Your task to perform on an android device: open a new tab in the chrome app Image 0: 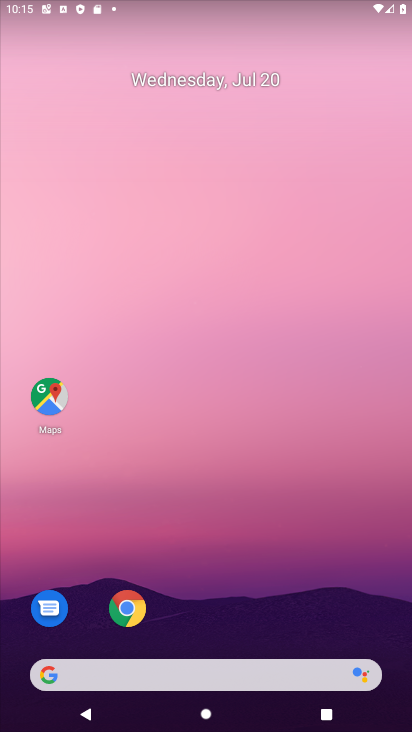
Step 0: drag from (219, 634) to (265, 69)
Your task to perform on an android device: open a new tab in the chrome app Image 1: 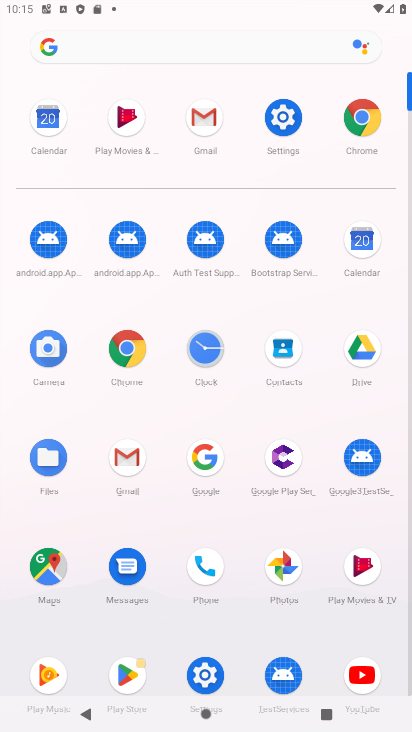
Step 1: click (132, 368)
Your task to perform on an android device: open a new tab in the chrome app Image 2: 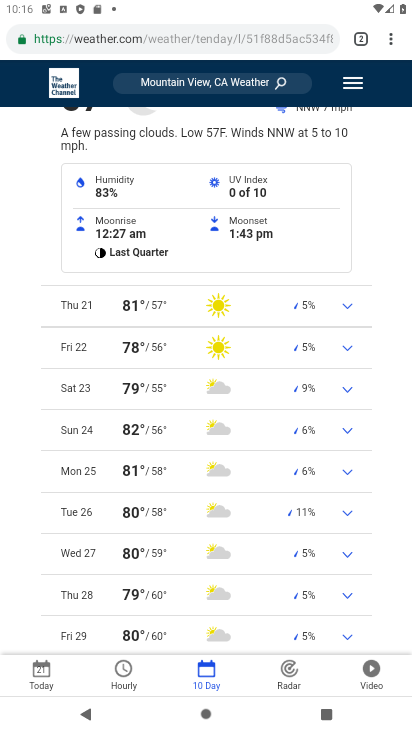
Step 2: click (363, 44)
Your task to perform on an android device: open a new tab in the chrome app Image 3: 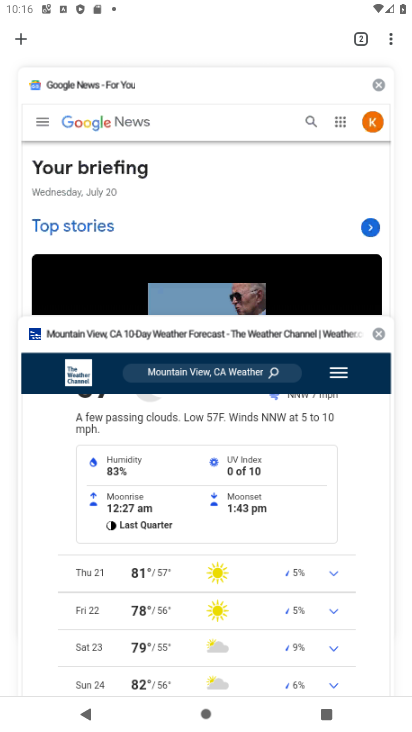
Step 3: click (13, 39)
Your task to perform on an android device: open a new tab in the chrome app Image 4: 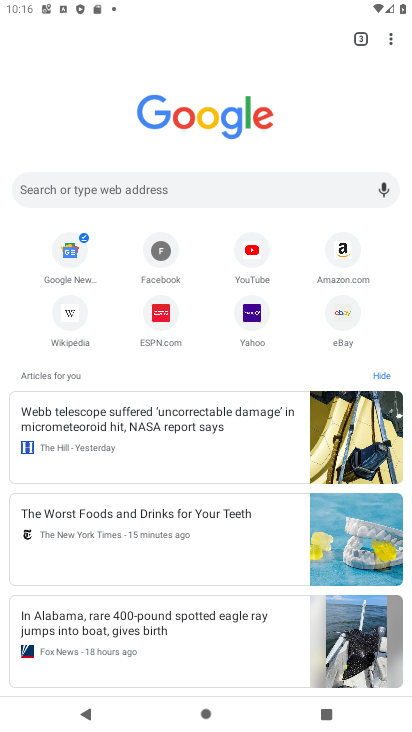
Step 4: task complete